Your task to perform on an android device: check out phone information Image 0: 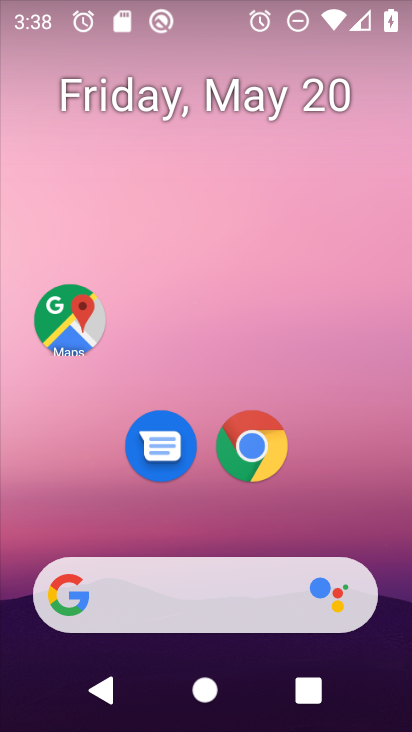
Step 0: drag from (362, 531) to (393, 23)
Your task to perform on an android device: check out phone information Image 1: 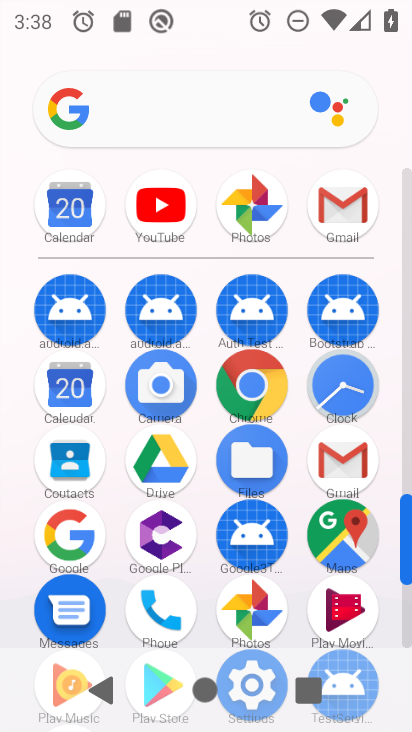
Step 1: drag from (408, 500) to (411, 451)
Your task to perform on an android device: check out phone information Image 2: 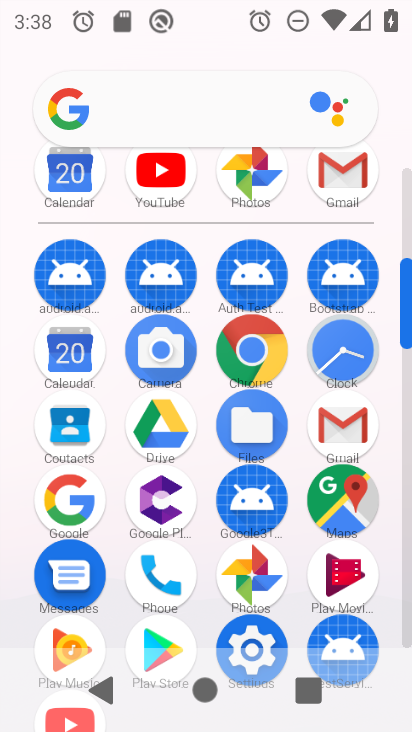
Step 2: drag from (405, 468) to (405, 409)
Your task to perform on an android device: check out phone information Image 3: 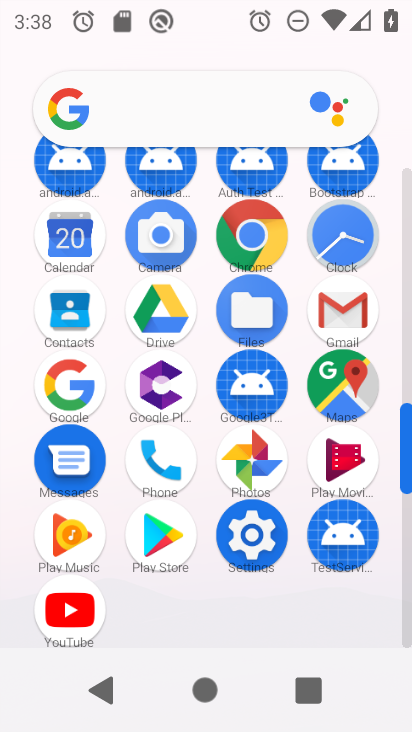
Step 3: click (258, 531)
Your task to perform on an android device: check out phone information Image 4: 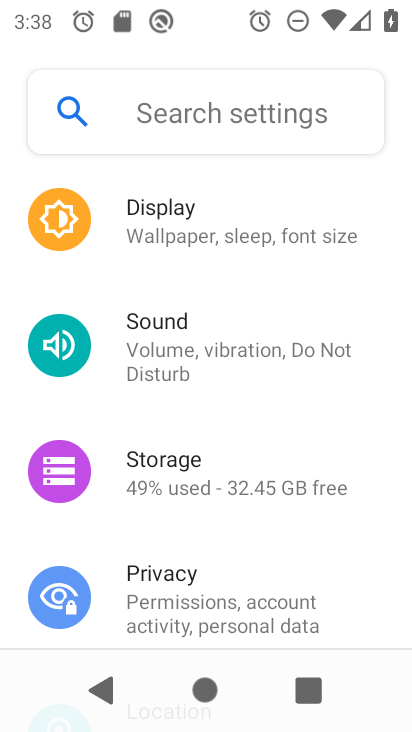
Step 4: drag from (316, 595) to (315, 132)
Your task to perform on an android device: check out phone information Image 5: 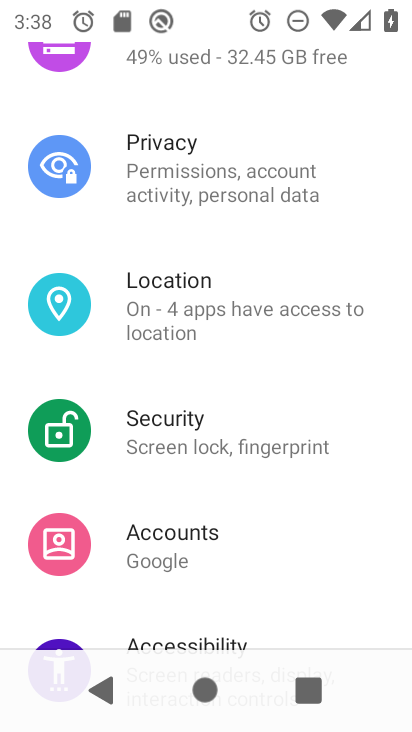
Step 5: drag from (249, 543) to (267, 134)
Your task to perform on an android device: check out phone information Image 6: 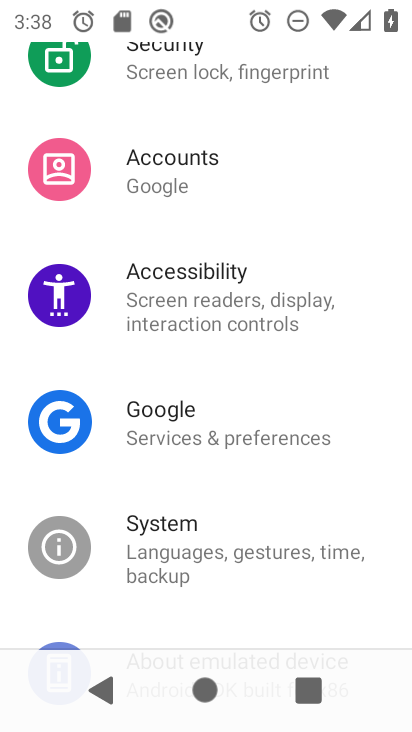
Step 6: drag from (230, 527) to (239, 205)
Your task to perform on an android device: check out phone information Image 7: 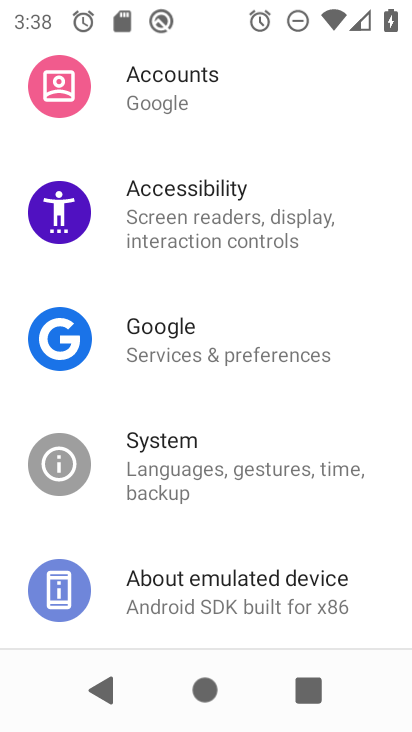
Step 7: click (186, 586)
Your task to perform on an android device: check out phone information Image 8: 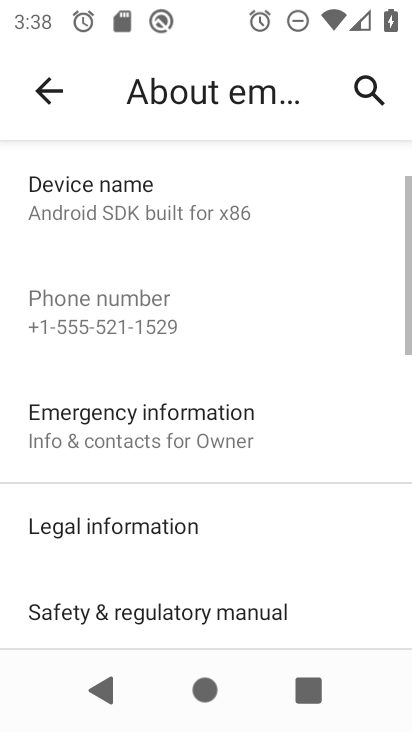
Step 8: task complete